Your task to perform on an android device: star an email in the gmail app Image 0: 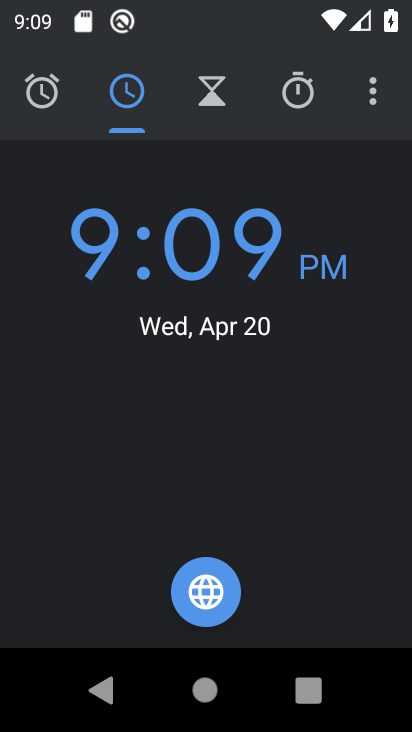
Step 0: press home button
Your task to perform on an android device: star an email in the gmail app Image 1: 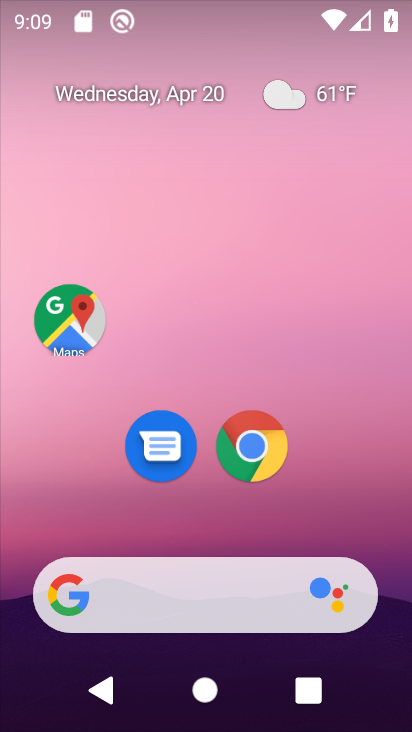
Step 1: drag from (358, 511) to (353, 101)
Your task to perform on an android device: star an email in the gmail app Image 2: 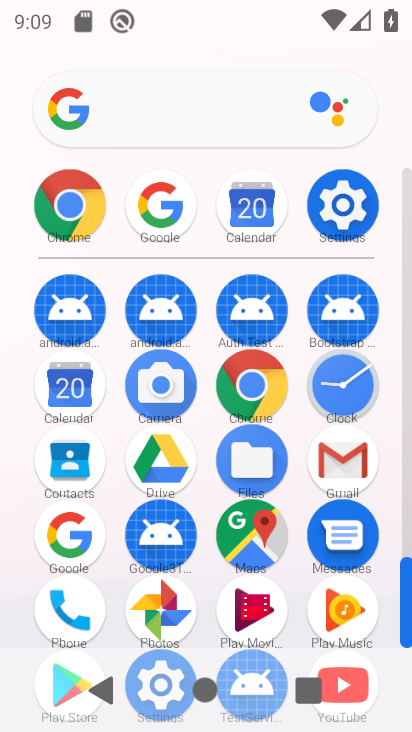
Step 2: click (344, 469)
Your task to perform on an android device: star an email in the gmail app Image 3: 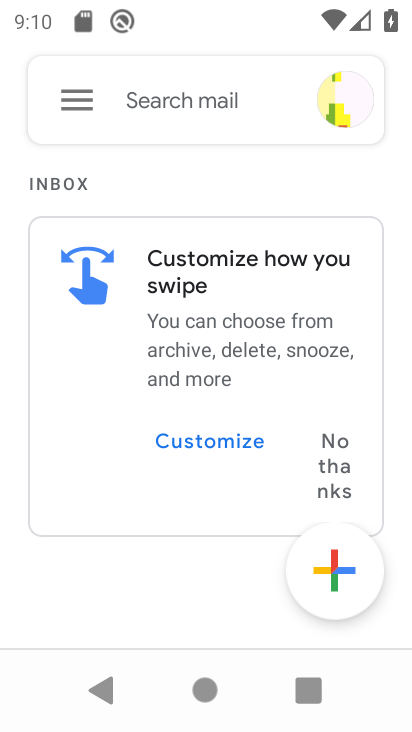
Step 3: click (74, 108)
Your task to perform on an android device: star an email in the gmail app Image 4: 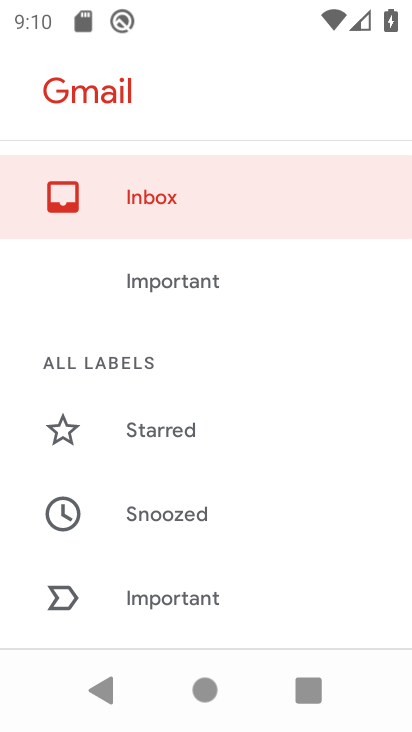
Step 4: drag from (234, 609) to (296, 298)
Your task to perform on an android device: star an email in the gmail app Image 5: 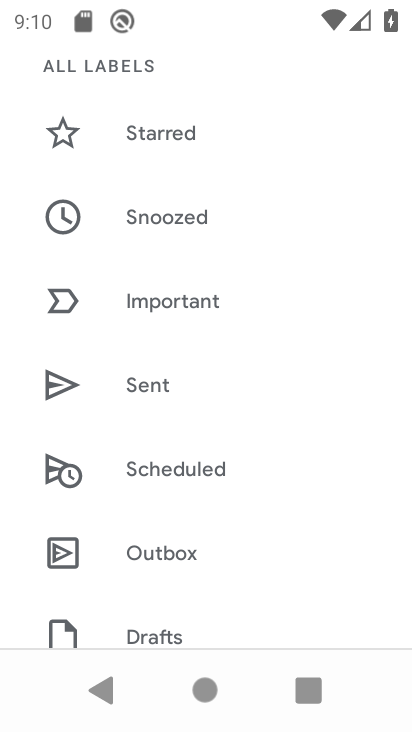
Step 5: drag from (275, 605) to (331, 214)
Your task to perform on an android device: star an email in the gmail app Image 6: 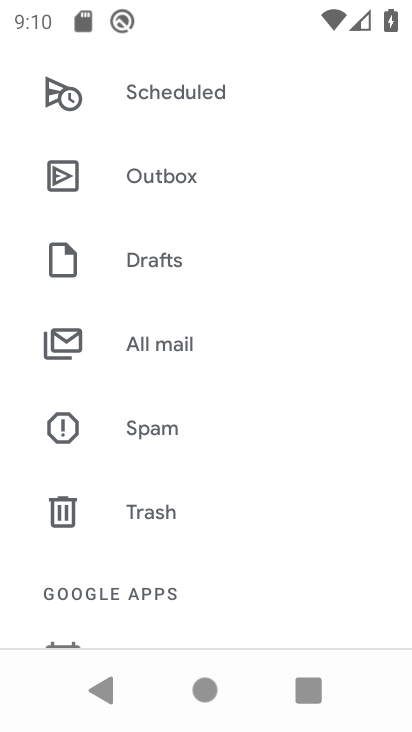
Step 6: click (205, 346)
Your task to perform on an android device: star an email in the gmail app Image 7: 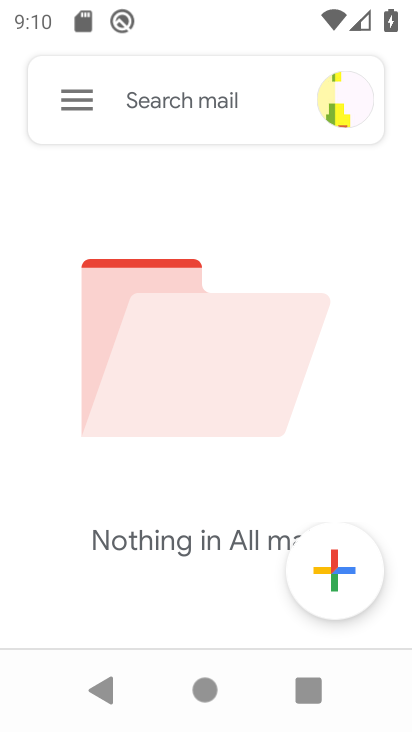
Step 7: task complete